Your task to perform on an android device: Open ESPN.com Image 0: 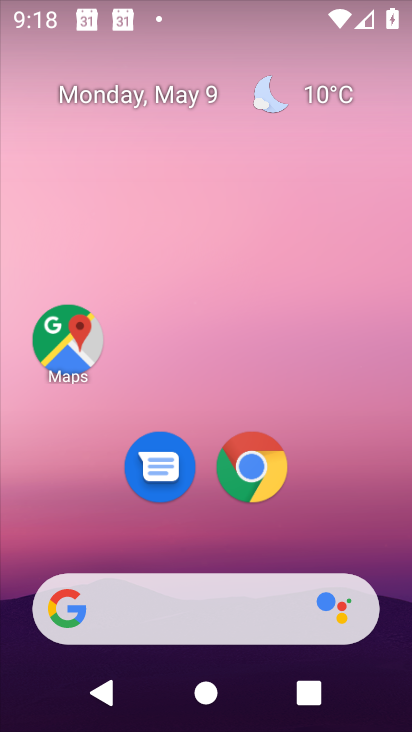
Step 0: click (248, 488)
Your task to perform on an android device: Open ESPN.com Image 1: 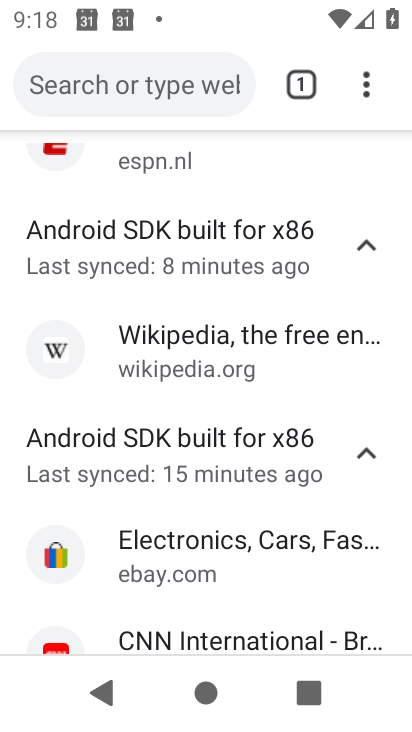
Step 1: click (136, 93)
Your task to perform on an android device: Open ESPN.com Image 2: 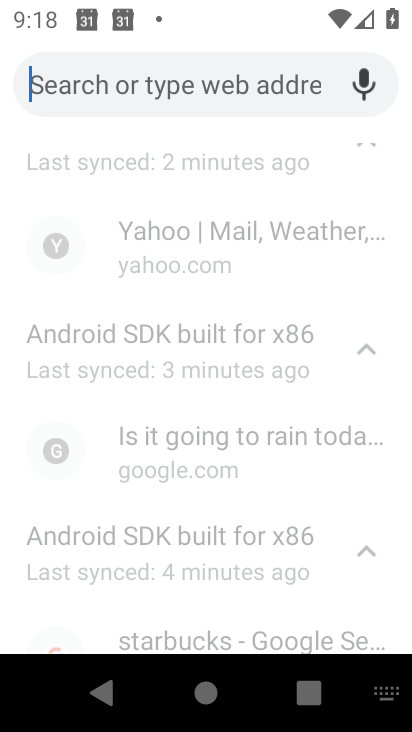
Step 2: type "espn.com"
Your task to perform on an android device: Open ESPN.com Image 3: 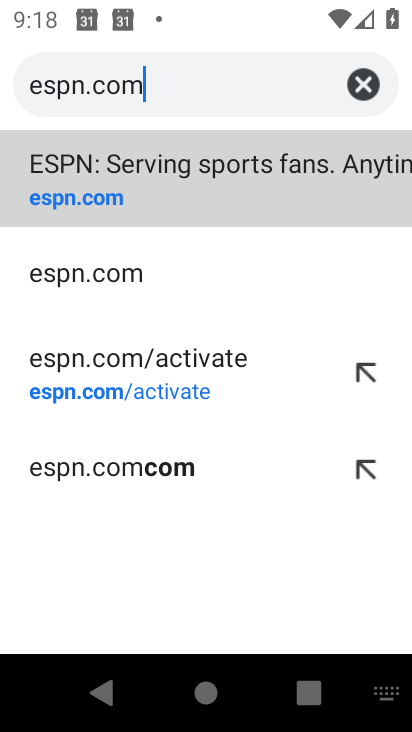
Step 3: click (79, 280)
Your task to perform on an android device: Open ESPN.com Image 4: 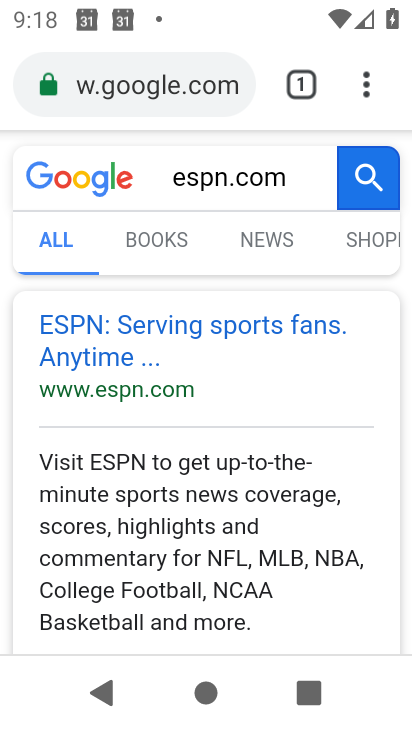
Step 4: click (83, 323)
Your task to perform on an android device: Open ESPN.com Image 5: 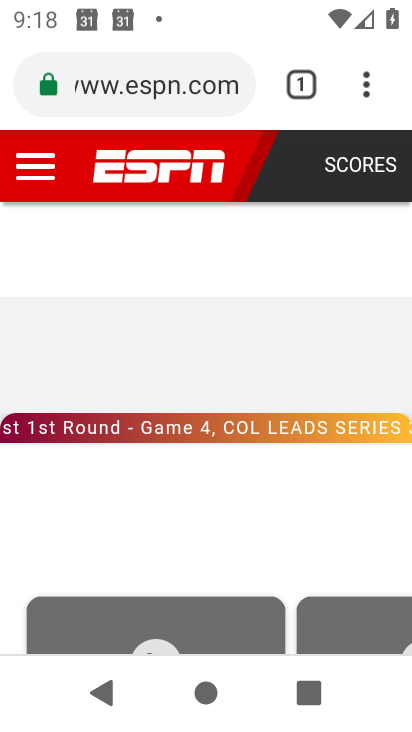
Step 5: task complete